Your task to perform on an android device: turn on translation in the chrome app Image 0: 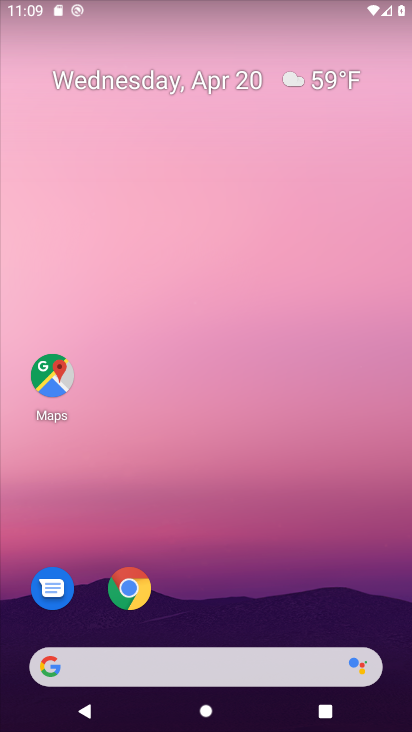
Step 0: click (124, 589)
Your task to perform on an android device: turn on translation in the chrome app Image 1: 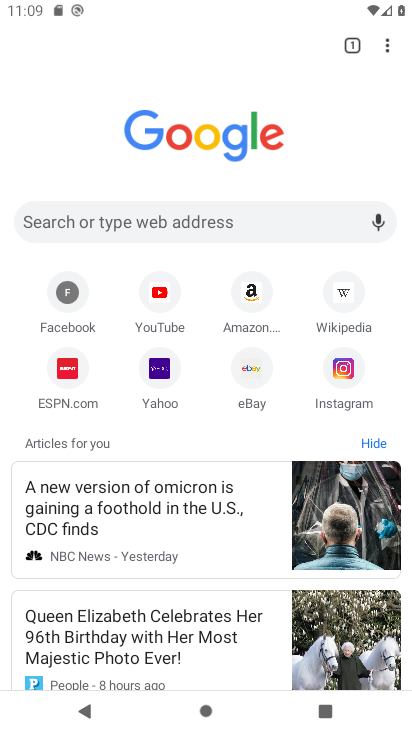
Step 1: click (384, 47)
Your task to perform on an android device: turn on translation in the chrome app Image 2: 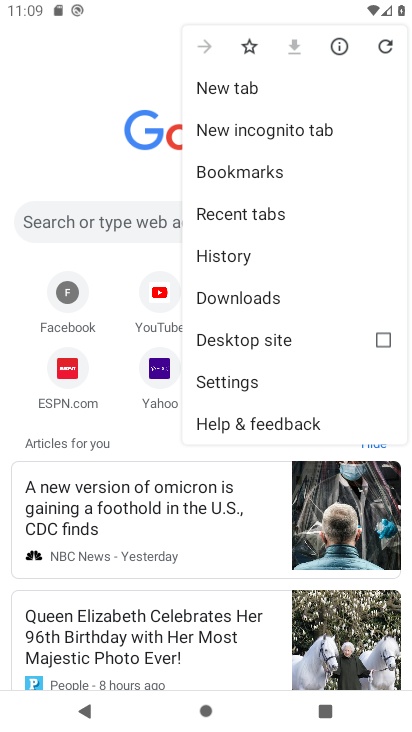
Step 2: click (223, 380)
Your task to perform on an android device: turn on translation in the chrome app Image 3: 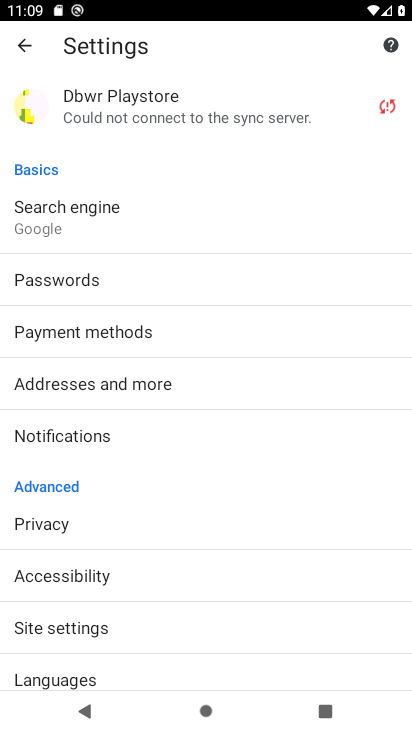
Step 3: drag from (167, 597) to (190, 345)
Your task to perform on an android device: turn on translation in the chrome app Image 4: 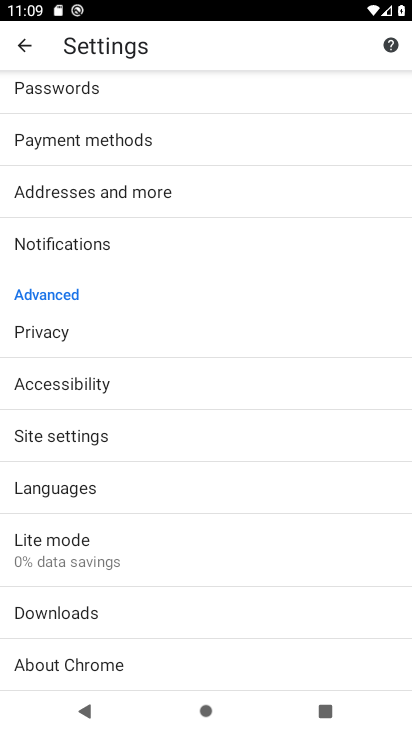
Step 4: click (52, 482)
Your task to perform on an android device: turn on translation in the chrome app Image 5: 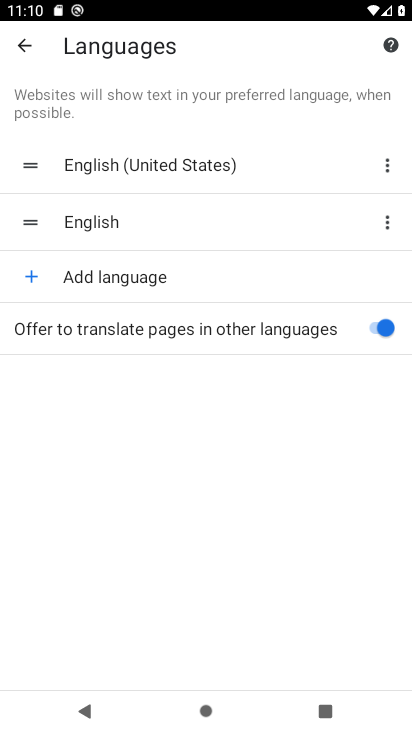
Step 5: task complete